Your task to perform on an android device: Search for Italian restaurants on Maps Image 0: 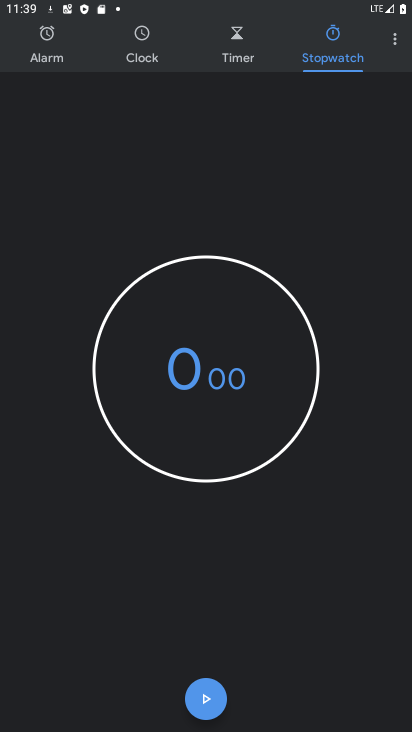
Step 0: press home button
Your task to perform on an android device: Search for Italian restaurants on Maps Image 1: 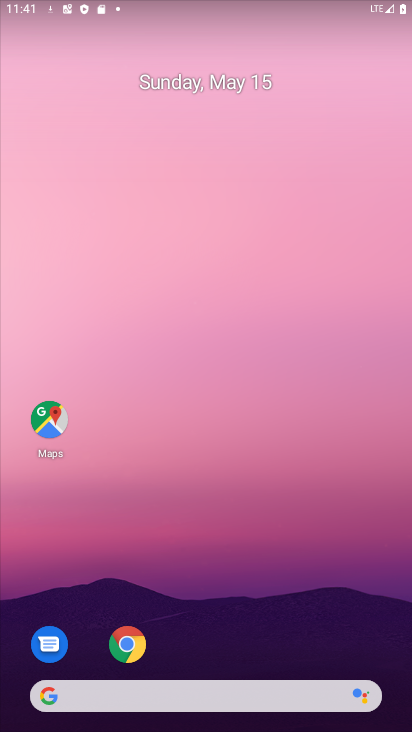
Step 1: drag from (252, 619) to (206, 308)
Your task to perform on an android device: Search for Italian restaurants on Maps Image 2: 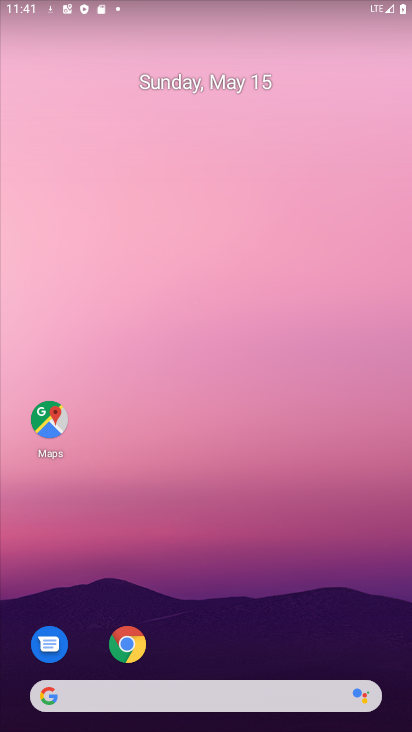
Step 2: drag from (278, 692) to (292, 235)
Your task to perform on an android device: Search for Italian restaurants on Maps Image 3: 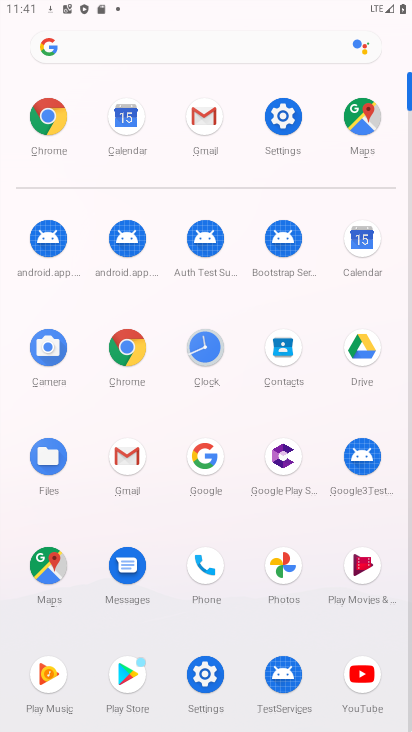
Step 3: click (44, 584)
Your task to perform on an android device: Search for Italian restaurants on Maps Image 4: 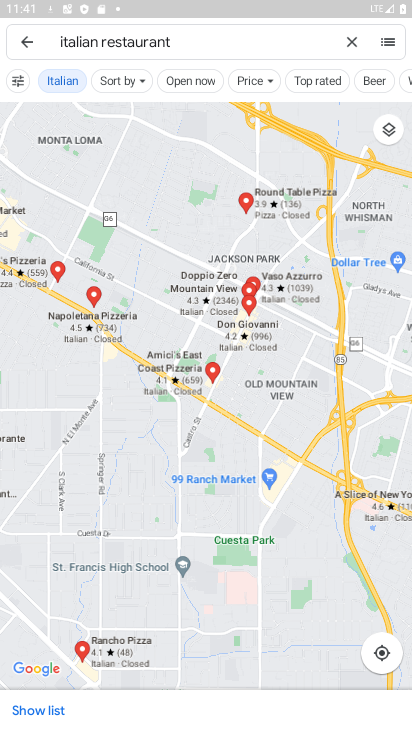
Step 4: click (386, 650)
Your task to perform on an android device: Search for Italian restaurants on Maps Image 5: 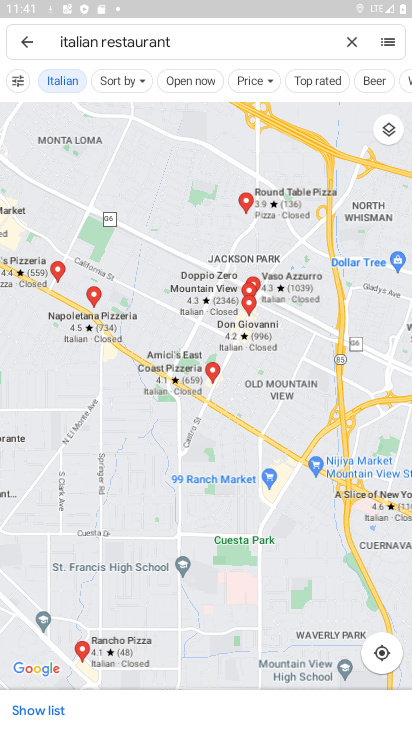
Step 5: task complete